Your task to perform on an android device: Is it going to rain this weekend? Image 0: 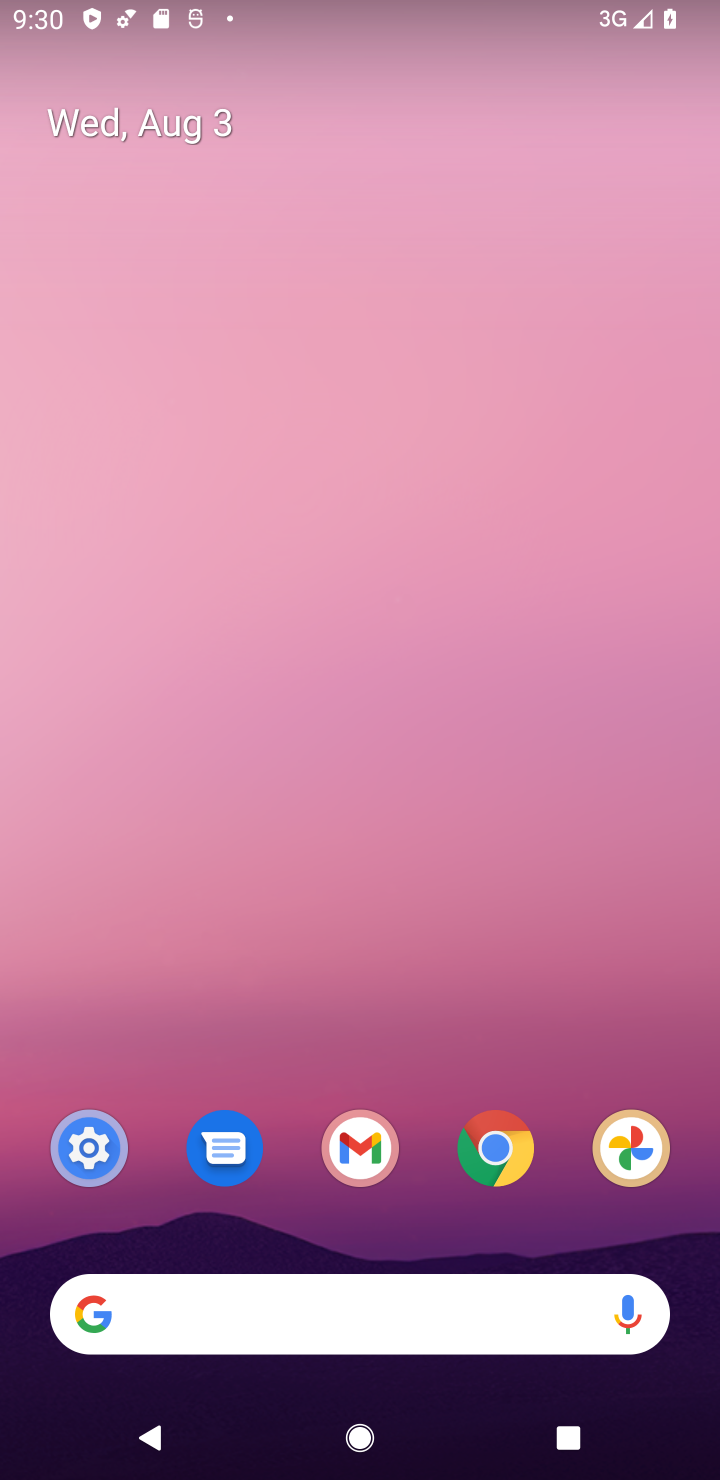
Step 0: drag from (426, 804) to (460, 19)
Your task to perform on an android device: Is it going to rain this weekend? Image 1: 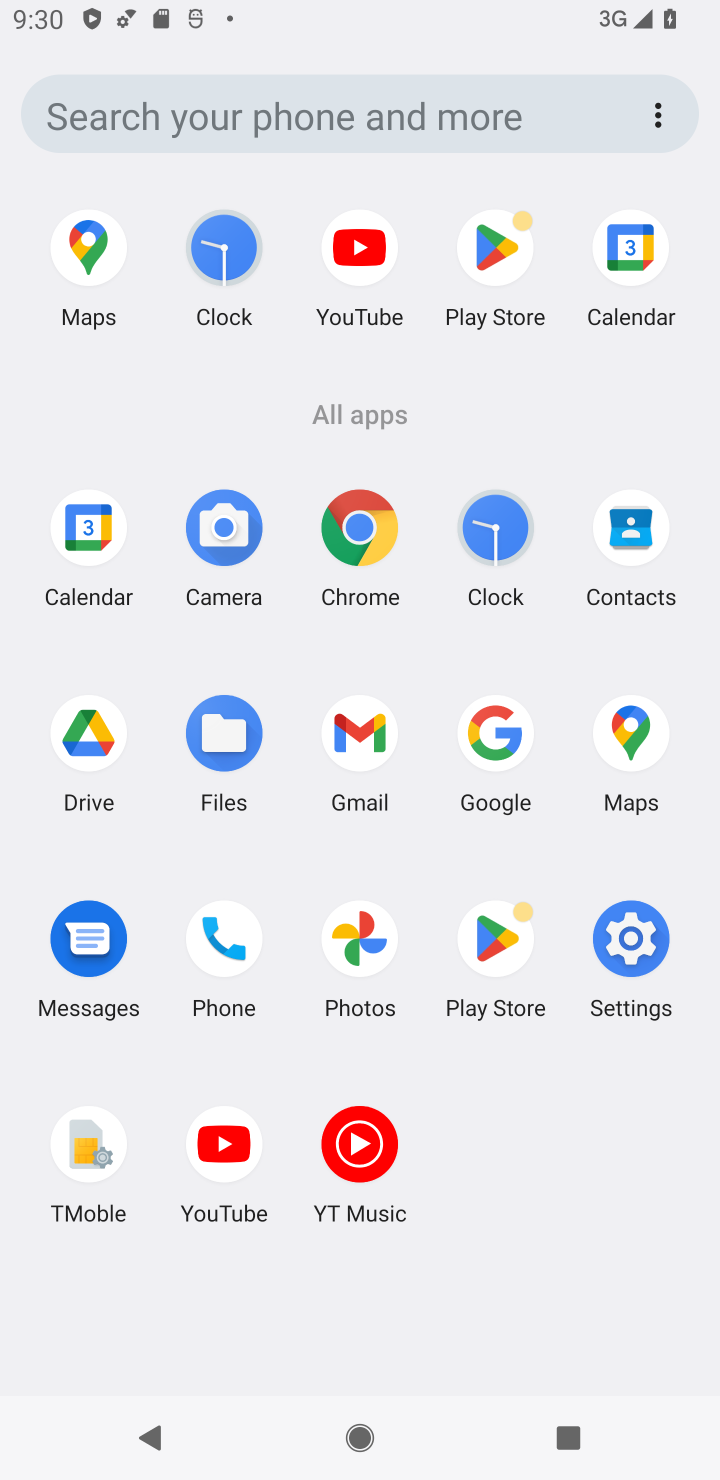
Step 1: click (640, 260)
Your task to perform on an android device: Is it going to rain this weekend? Image 2: 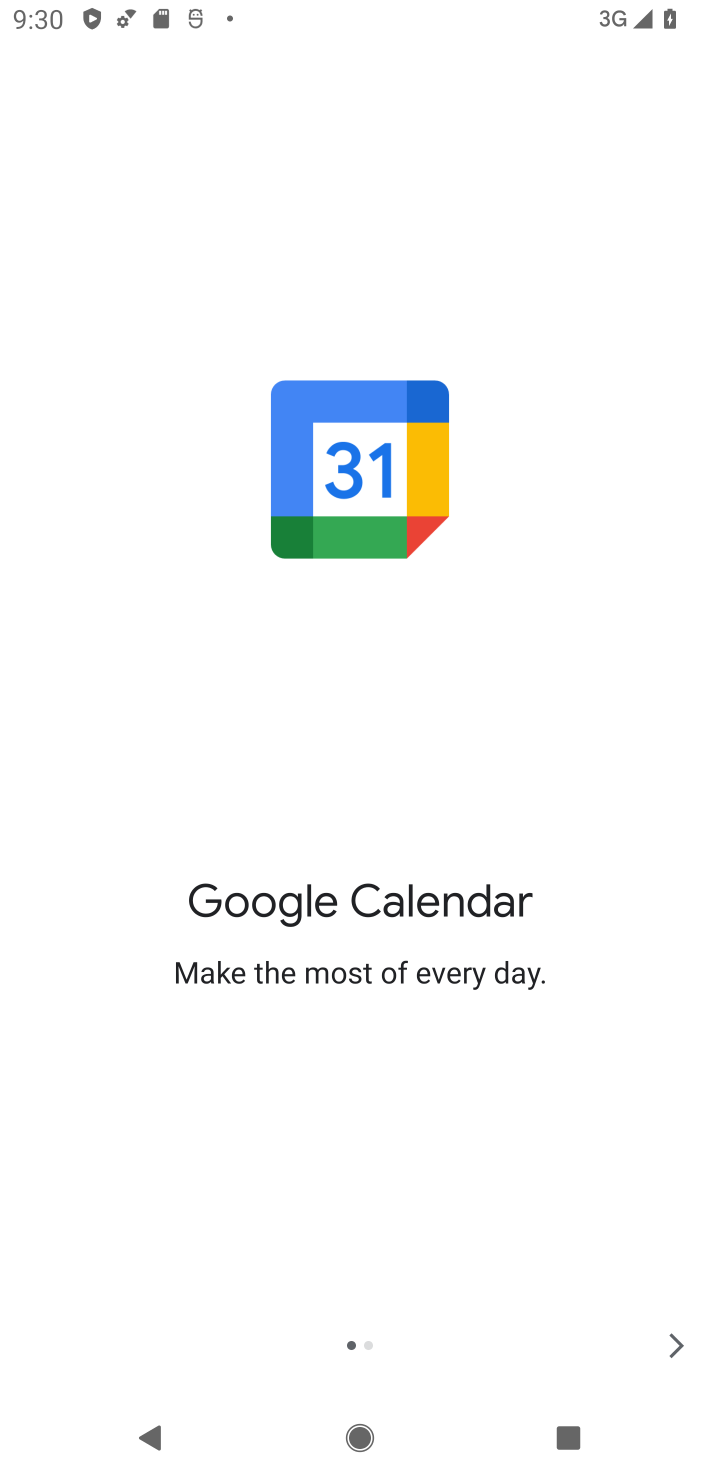
Step 2: click (662, 1343)
Your task to perform on an android device: Is it going to rain this weekend? Image 3: 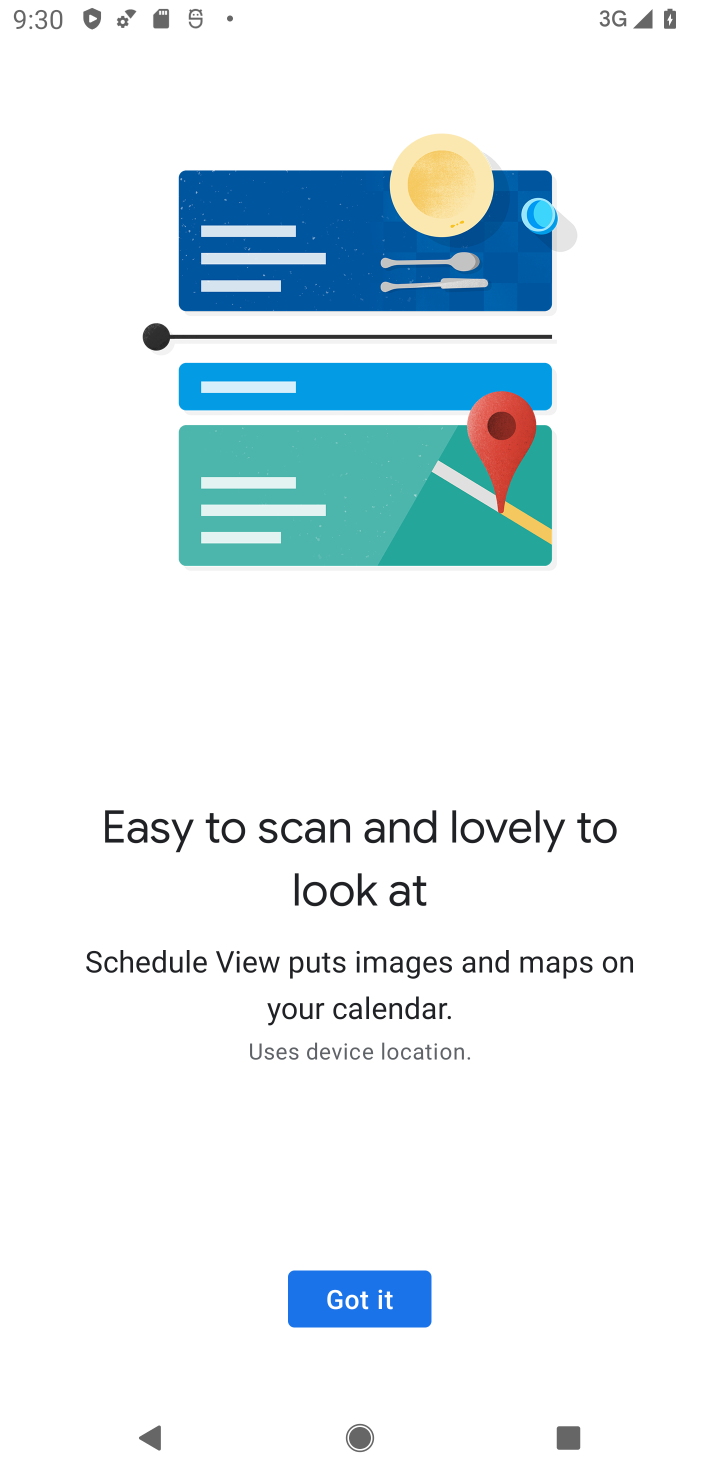
Step 3: click (369, 1307)
Your task to perform on an android device: Is it going to rain this weekend? Image 4: 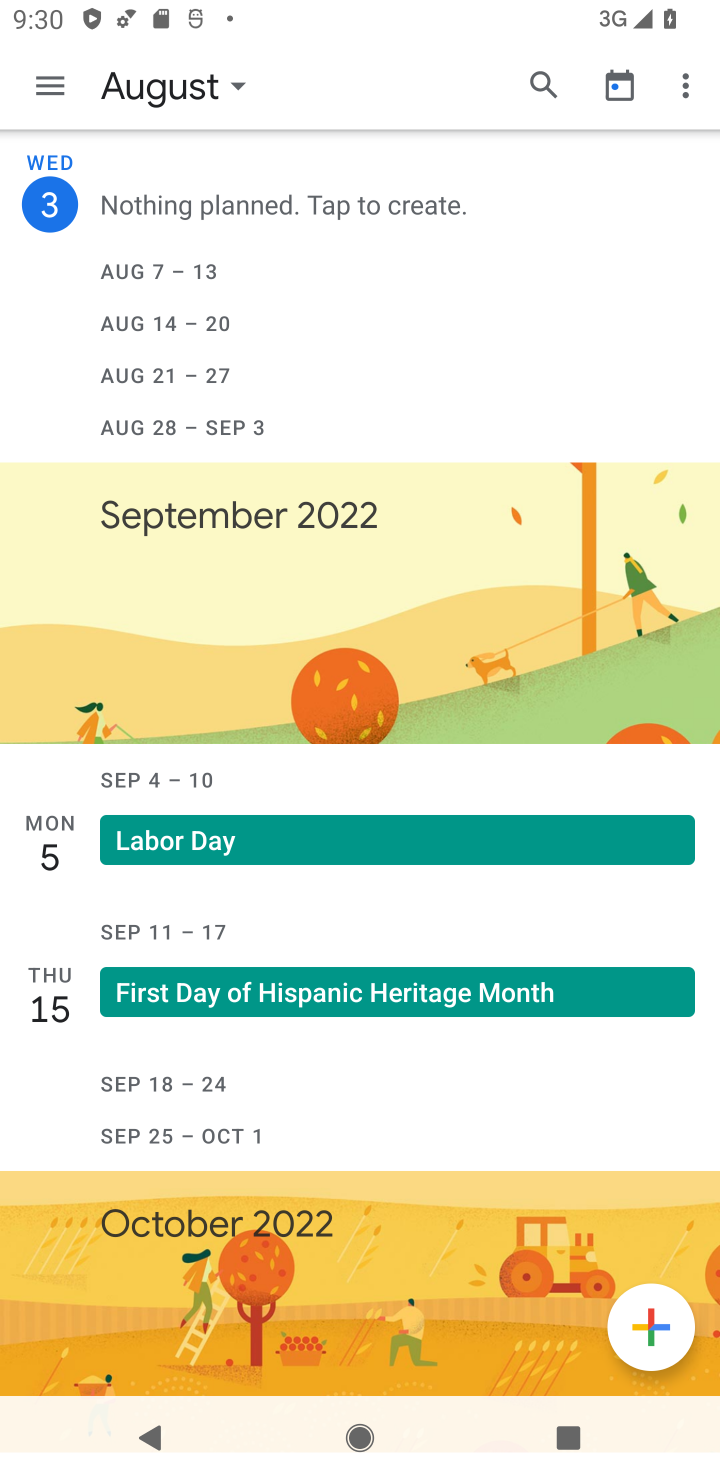
Step 4: task complete